Your task to perform on an android device: turn off data saver in the chrome app Image 0: 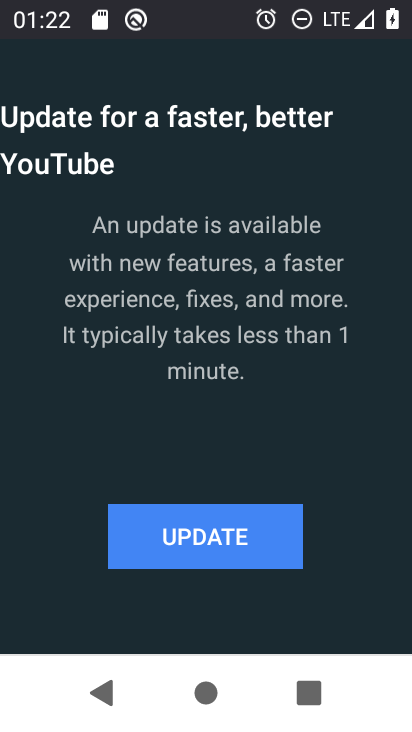
Step 0: press home button
Your task to perform on an android device: turn off data saver in the chrome app Image 1: 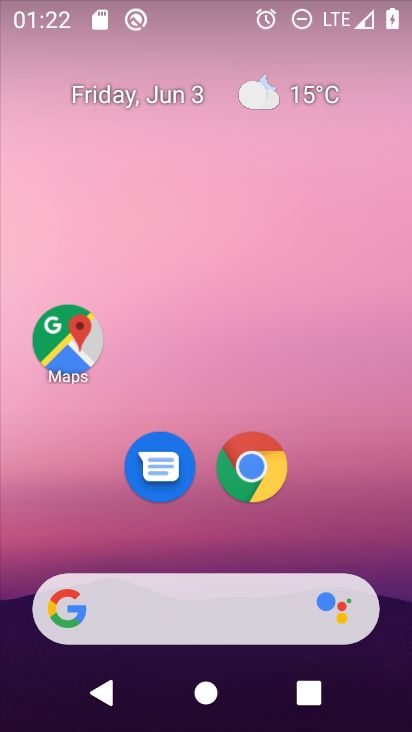
Step 1: click (245, 460)
Your task to perform on an android device: turn off data saver in the chrome app Image 2: 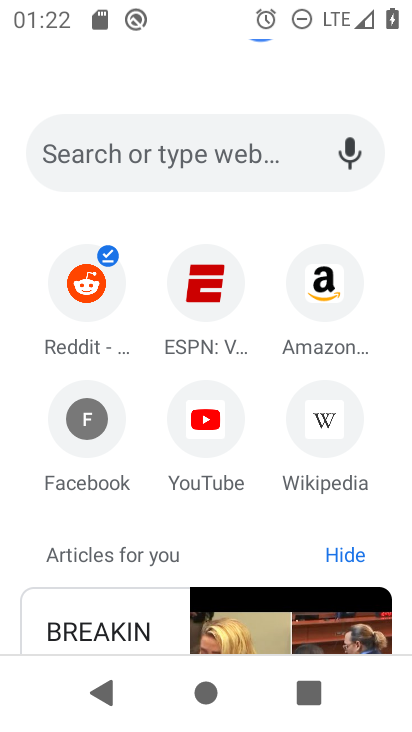
Step 2: drag from (371, 66) to (390, 318)
Your task to perform on an android device: turn off data saver in the chrome app Image 3: 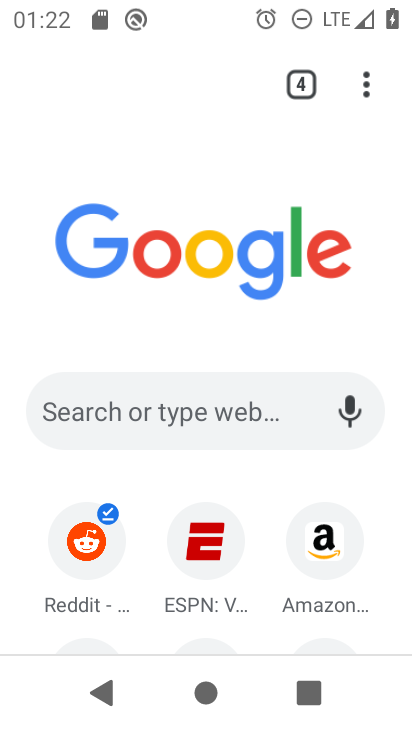
Step 3: click (363, 94)
Your task to perform on an android device: turn off data saver in the chrome app Image 4: 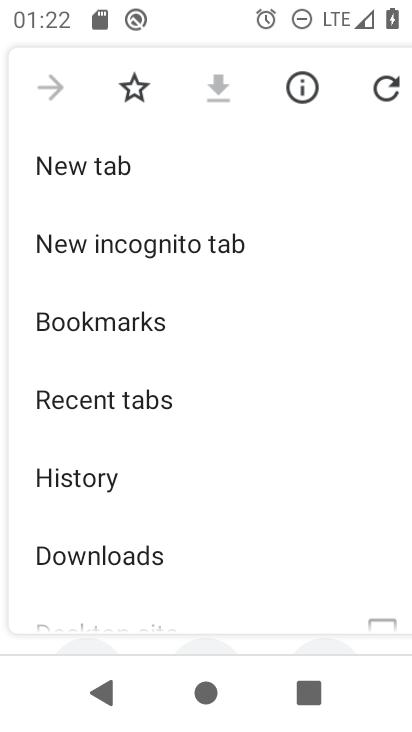
Step 4: drag from (234, 551) to (270, 103)
Your task to perform on an android device: turn off data saver in the chrome app Image 5: 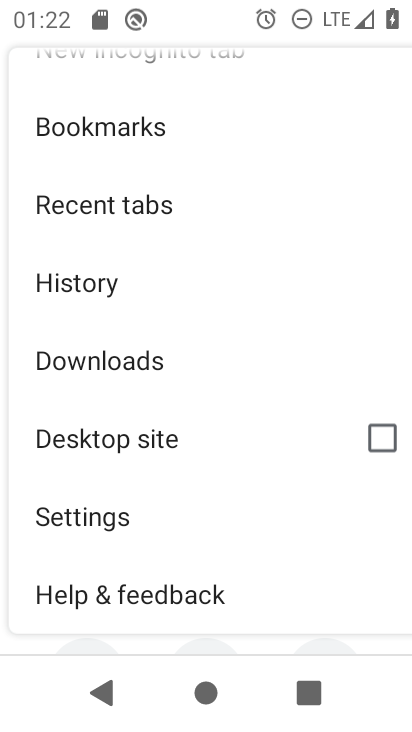
Step 5: click (90, 514)
Your task to perform on an android device: turn off data saver in the chrome app Image 6: 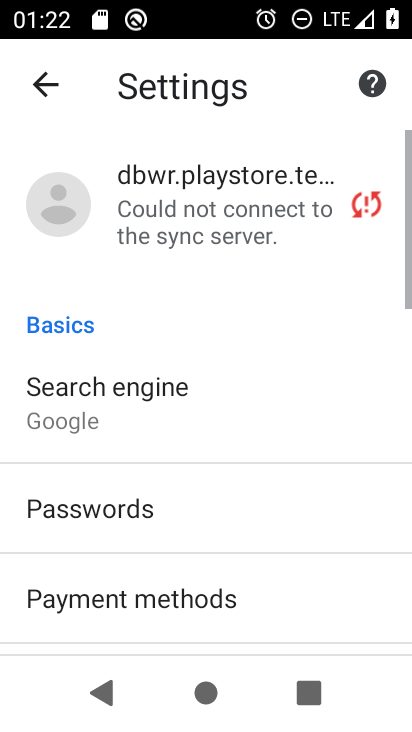
Step 6: drag from (271, 542) to (260, 162)
Your task to perform on an android device: turn off data saver in the chrome app Image 7: 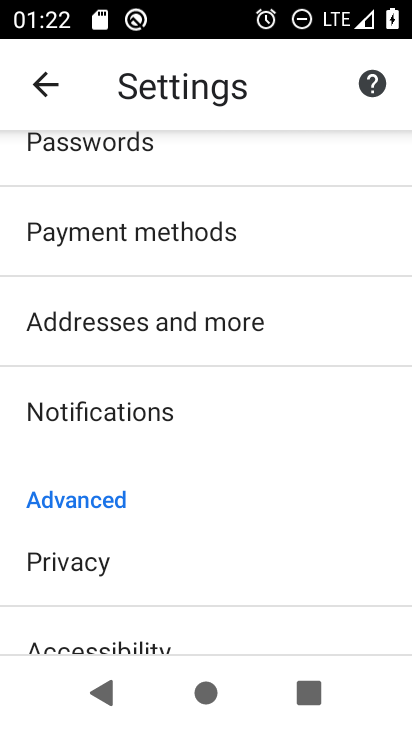
Step 7: drag from (227, 606) to (299, 243)
Your task to perform on an android device: turn off data saver in the chrome app Image 8: 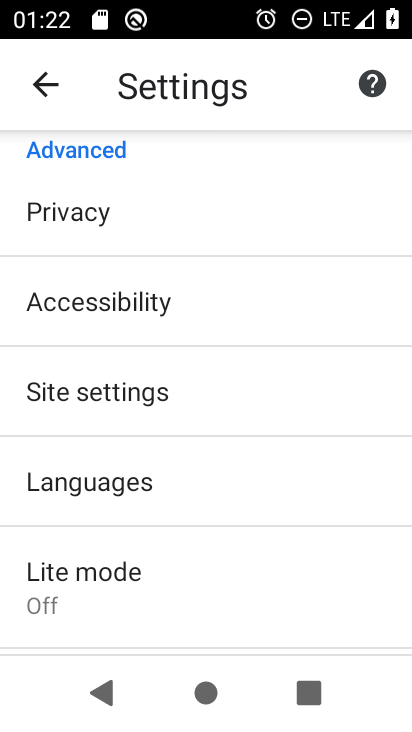
Step 8: click (94, 579)
Your task to perform on an android device: turn off data saver in the chrome app Image 9: 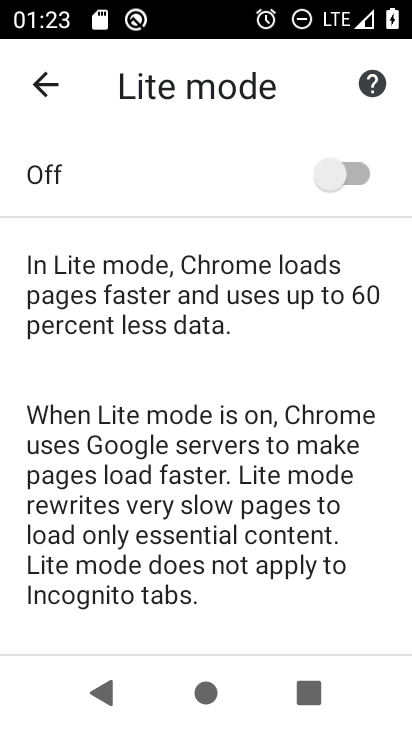
Step 9: task complete